Your task to perform on an android device: Turn on the flashlight Image 0: 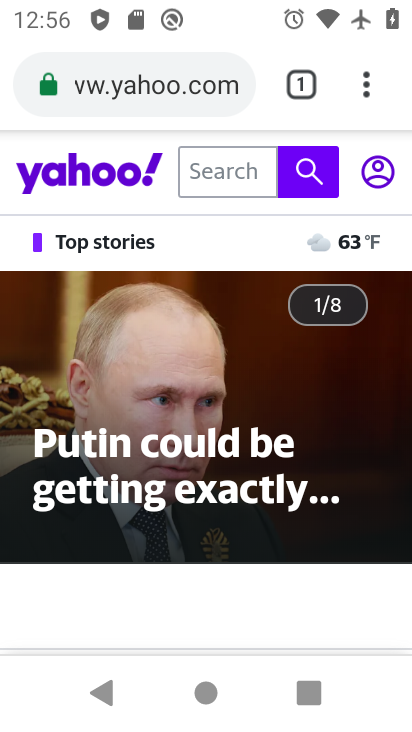
Step 0: press home button
Your task to perform on an android device: Turn on the flashlight Image 1: 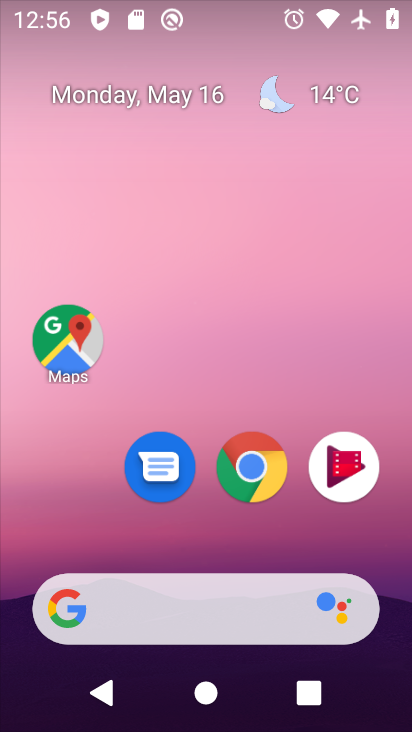
Step 1: drag from (225, 536) to (231, 258)
Your task to perform on an android device: Turn on the flashlight Image 2: 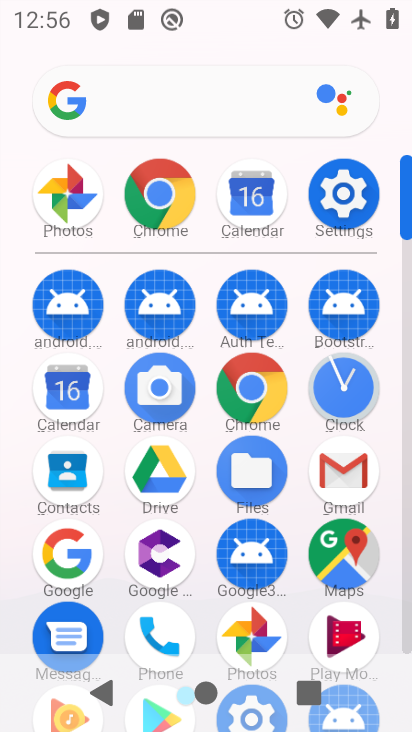
Step 2: click (347, 172)
Your task to perform on an android device: Turn on the flashlight Image 3: 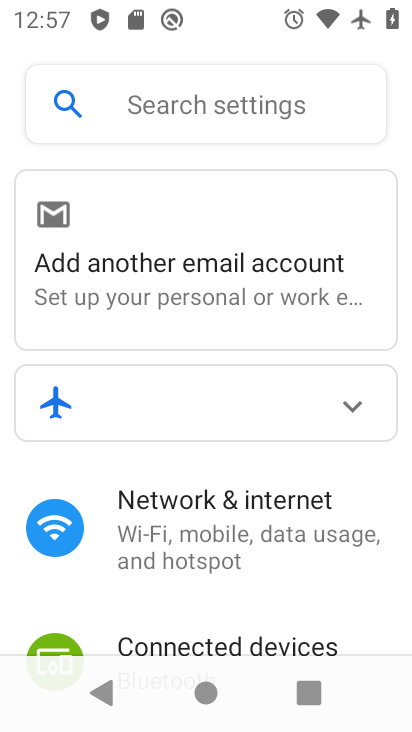
Step 3: task complete